Your task to perform on an android device: open chrome privacy settings Image 0: 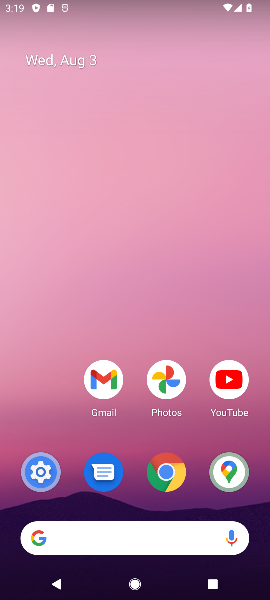
Step 0: click (162, 470)
Your task to perform on an android device: open chrome privacy settings Image 1: 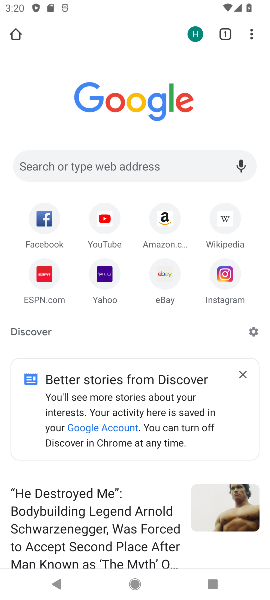
Step 1: drag from (251, 26) to (148, 313)
Your task to perform on an android device: open chrome privacy settings Image 2: 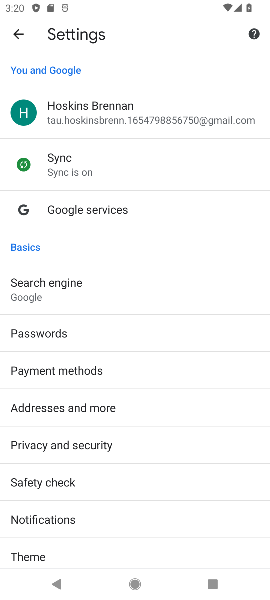
Step 2: click (72, 446)
Your task to perform on an android device: open chrome privacy settings Image 3: 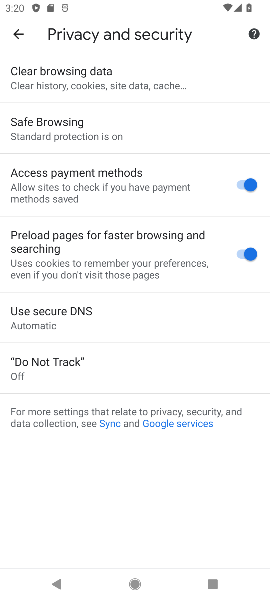
Step 3: task complete